Your task to perform on an android device: Go to Google maps Image 0: 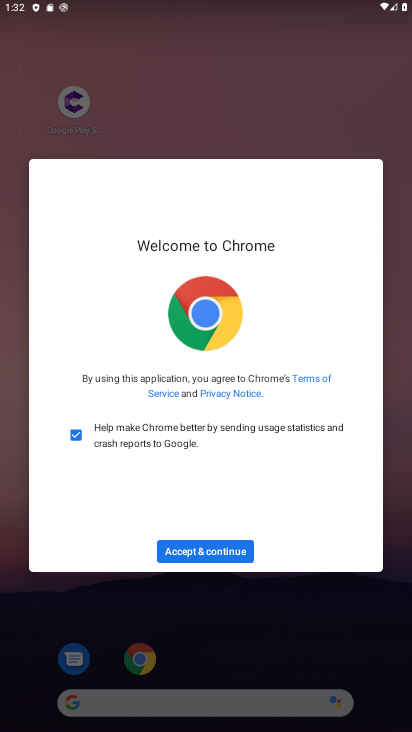
Step 0: click (222, 545)
Your task to perform on an android device: Go to Google maps Image 1: 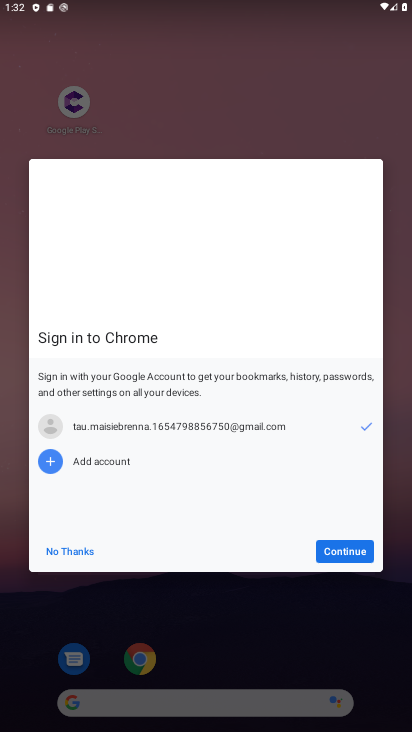
Step 1: click (336, 554)
Your task to perform on an android device: Go to Google maps Image 2: 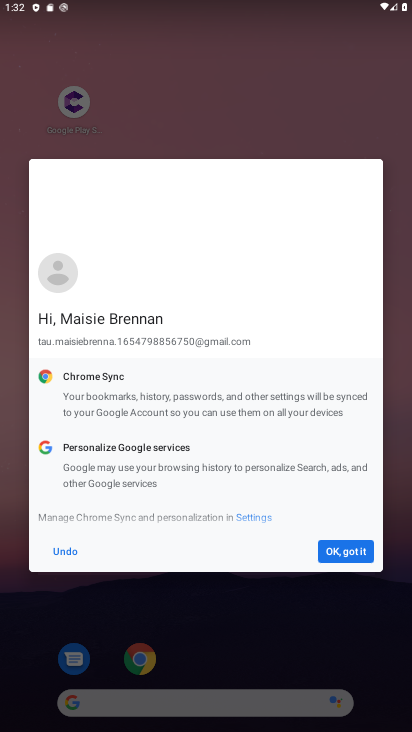
Step 2: click (330, 557)
Your task to perform on an android device: Go to Google maps Image 3: 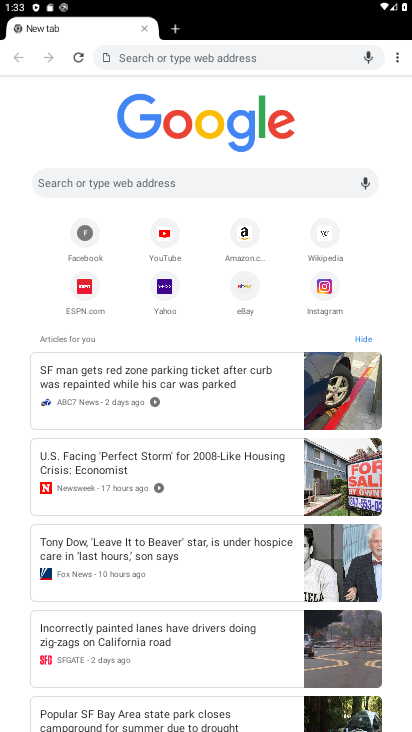
Step 3: press home button
Your task to perform on an android device: Go to Google maps Image 4: 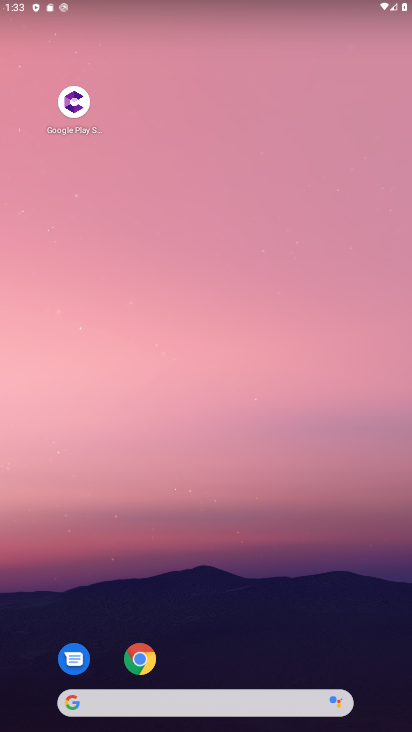
Step 4: drag from (136, 606) to (158, 381)
Your task to perform on an android device: Go to Google maps Image 5: 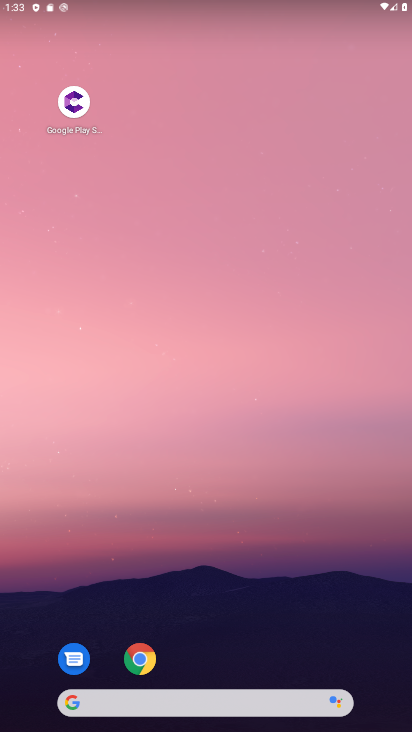
Step 5: drag from (277, 617) to (365, 254)
Your task to perform on an android device: Go to Google maps Image 6: 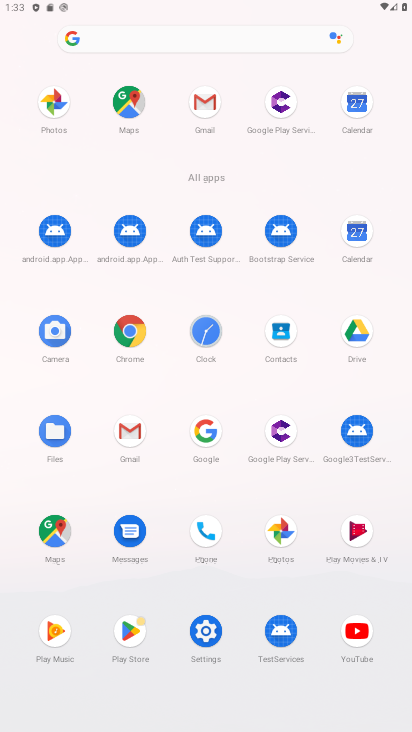
Step 6: click (51, 534)
Your task to perform on an android device: Go to Google maps Image 7: 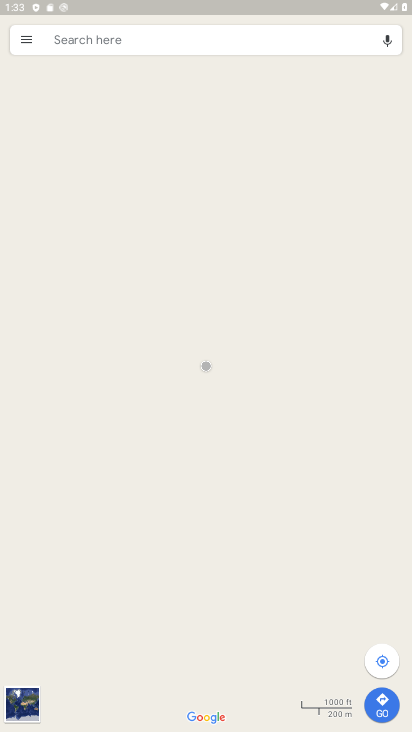
Step 7: task complete